Your task to perform on an android device: add a label to a message in the gmail app Image 0: 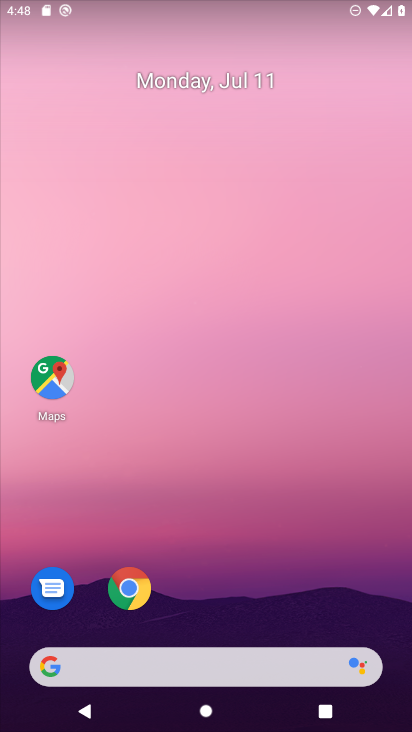
Step 0: press home button
Your task to perform on an android device: add a label to a message in the gmail app Image 1: 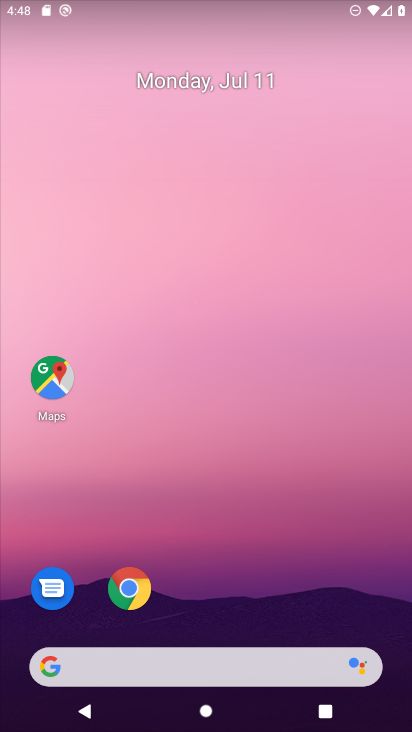
Step 1: drag from (201, 634) to (225, 138)
Your task to perform on an android device: add a label to a message in the gmail app Image 2: 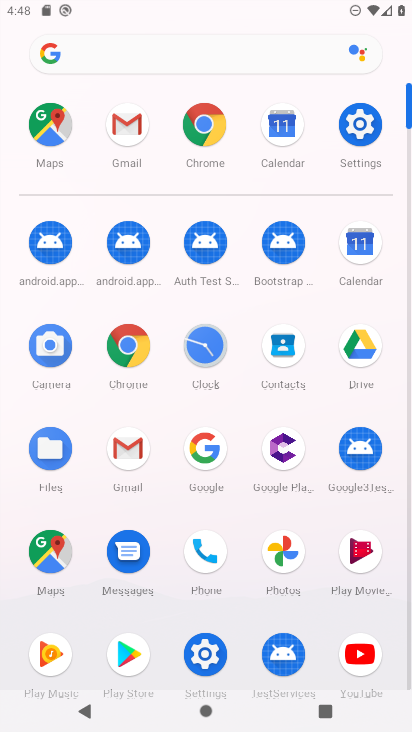
Step 2: click (128, 122)
Your task to perform on an android device: add a label to a message in the gmail app Image 3: 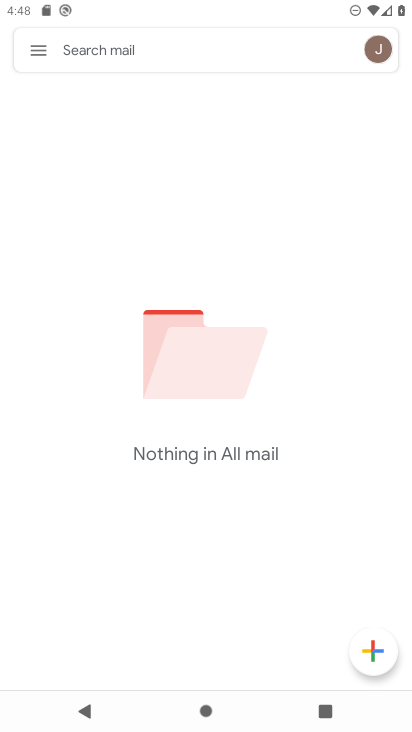
Step 3: click (37, 49)
Your task to perform on an android device: add a label to a message in the gmail app Image 4: 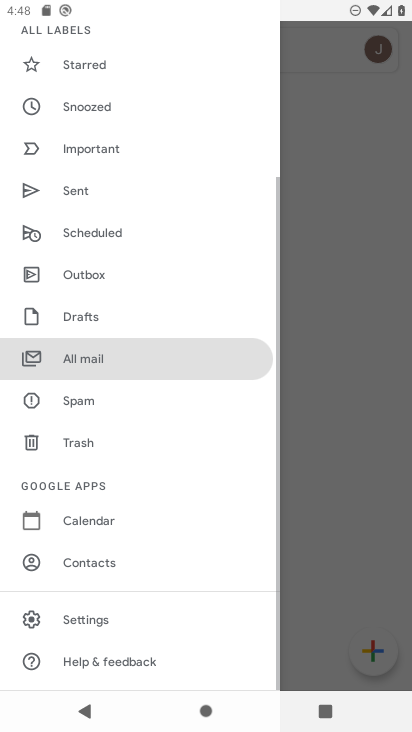
Step 4: click (91, 361)
Your task to perform on an android device: add a label to a message in the gmail app Image 5: 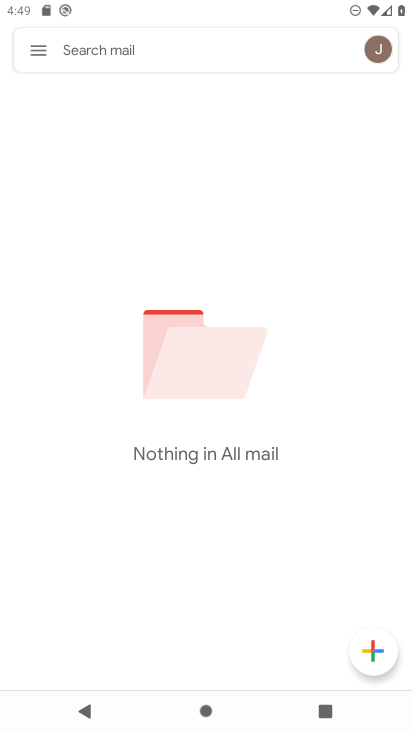
Step 5: task complete